Your task to perform on an android device: change notification settings in the gmail app Image 0: 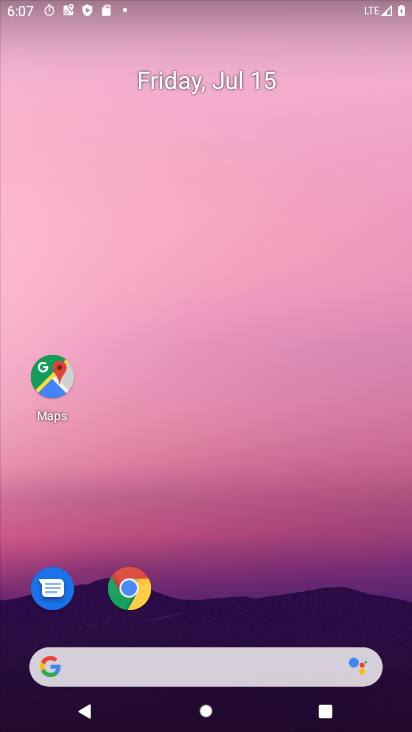
Step 0: drag from (114, 671) to (155, 204)
Your task to perform on an android device: change notification settings in the gmail app Image 1: 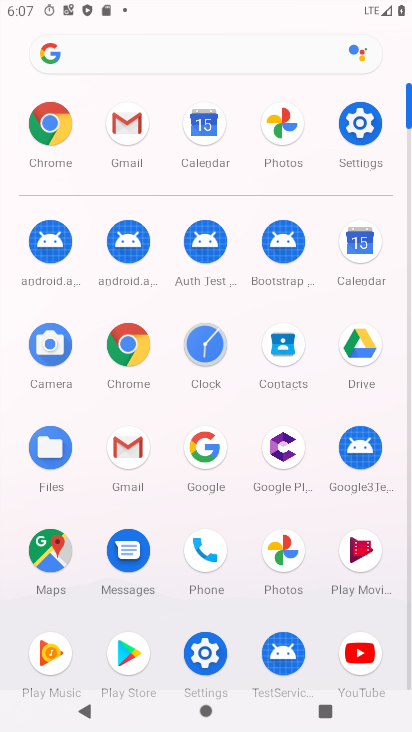
Step 1: click (139, 436)
Your task to perform on an android device: change notification settings in the gmail app Image 2: 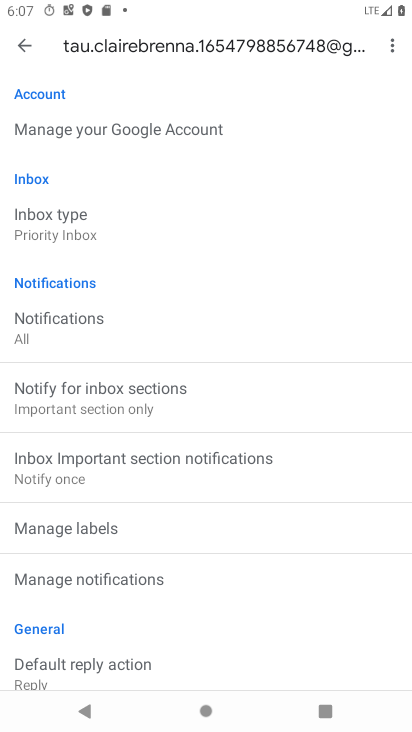
Step 2: click (75, 582)
Your task to perform on an android device: change notification settings in the gmail app Image 3: 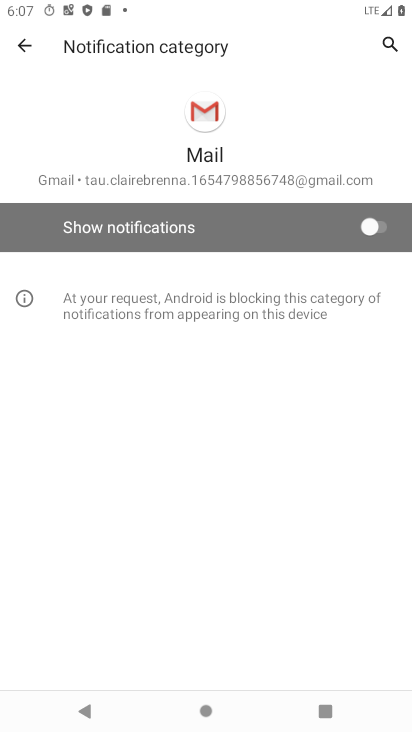
Step 3: click (378, 230)
Your task to perform on an android device: change notification settings in the gmail app Image 4: 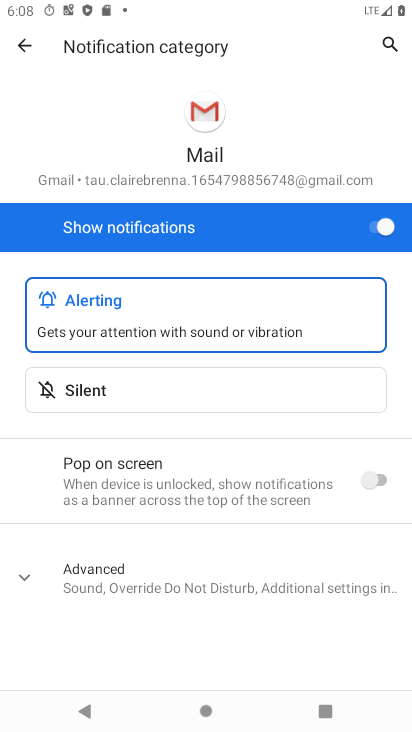
Step 4: task complete